Your task to perform on an android device: Open Chrome and go to settings Image 0: 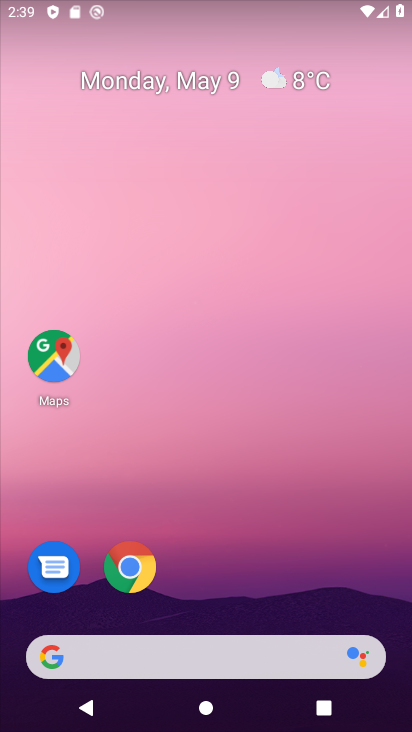
Step 0: drag from (311, 570) to (260, 7)
Your task to perform on an android device: Open Chrome and go to settings Image 1: 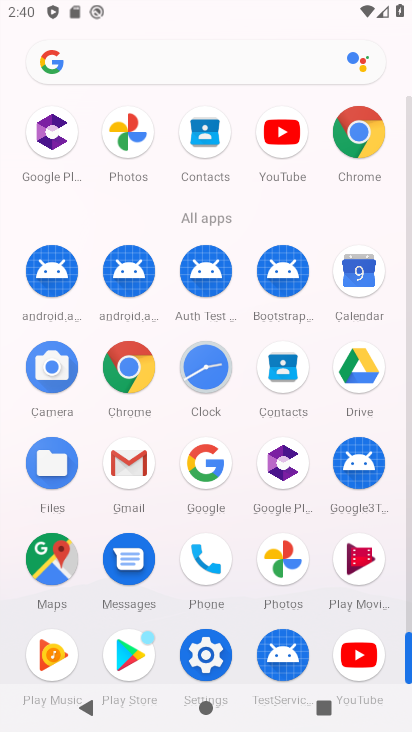
Step 1: click (127, 370)
Your task to perform on an android device: Open Chrome and go to settings Image 2: 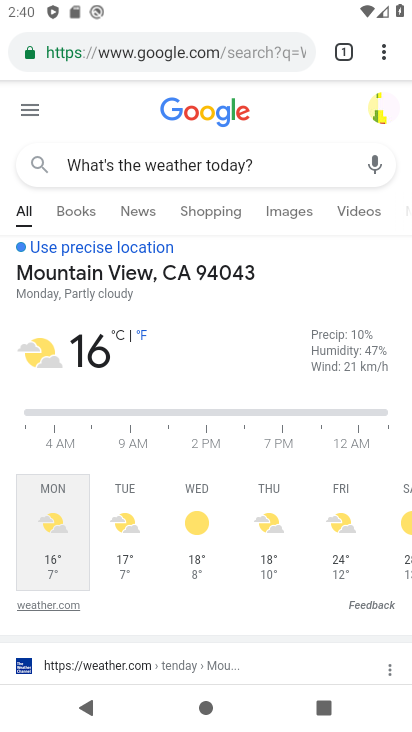
Step 2: task complete